Your task to perform on an android device: View the shopping cart on ebay.com. Search for corsair k70 on ebay.com, select the first entry, and add it to the cart. Image 0: 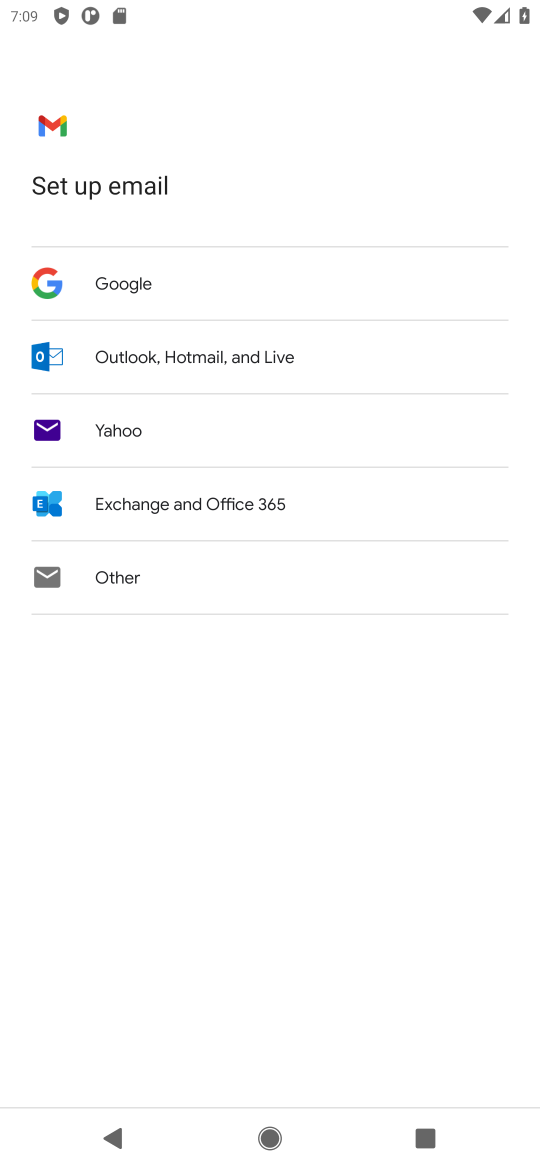
Step 0: press home button
Your task to perform on an android device: View the shopping cart on ebay.com. Search for corsair k70 on ebay.com, select the first entry, and add it to the cart. Image 1: 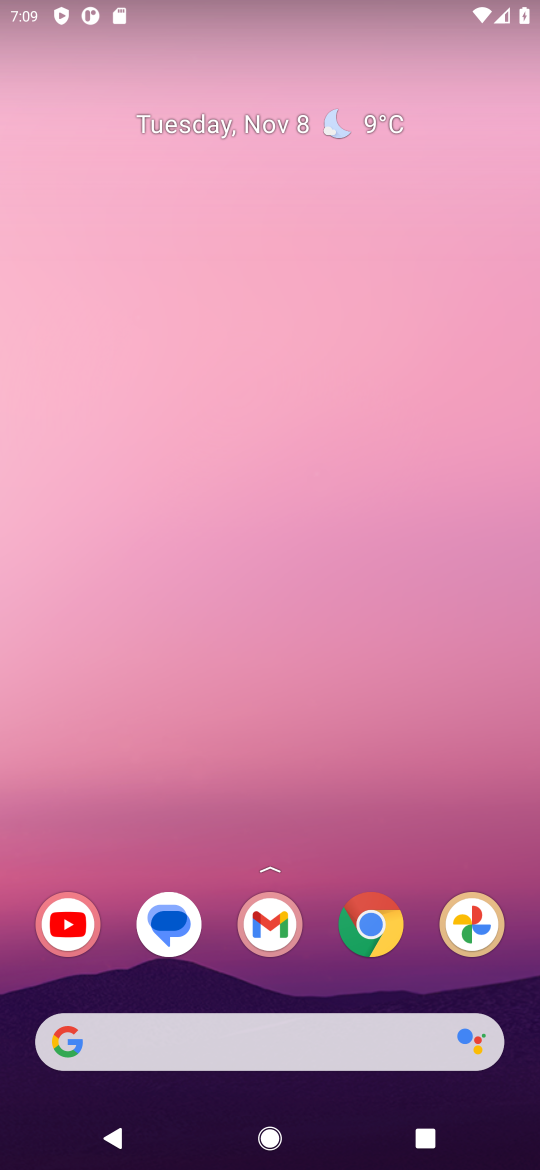
Step 1: drag from (238, 897) to (263, 353)
Your task to perform on an android device: View the shopping cart on ebay.com. Search for corsair k70 on ebay.com, select the first entry, and add it to the cart. Image 2: 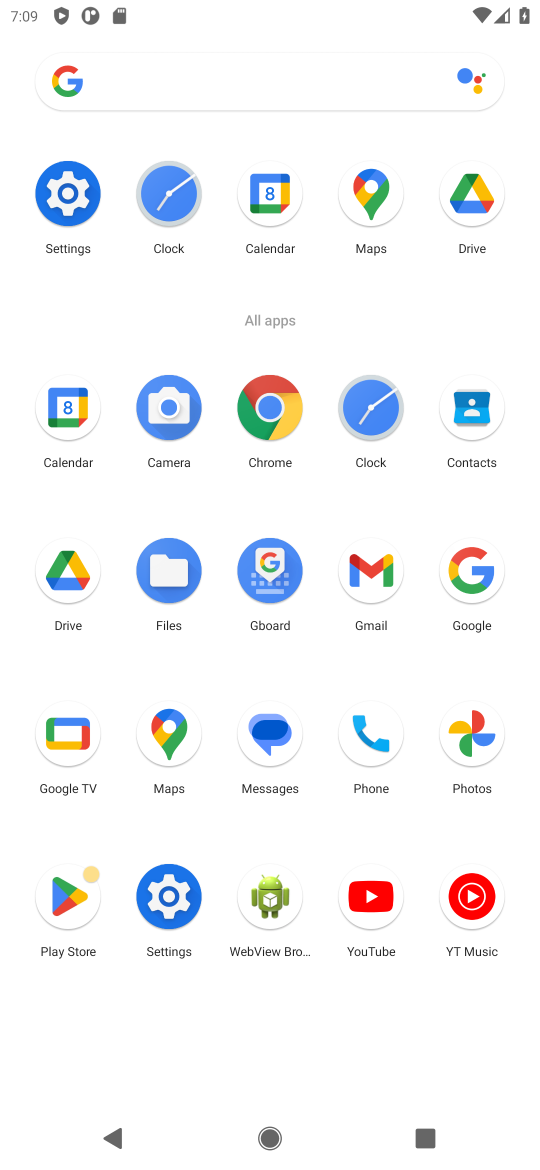
Step 2: click (471, 581)
Your task to perform on an android device: View the shopping cart on ebay.com. Search for corsair k70 on ebay.com, select the first entry, and add it to the cart. Image 3: 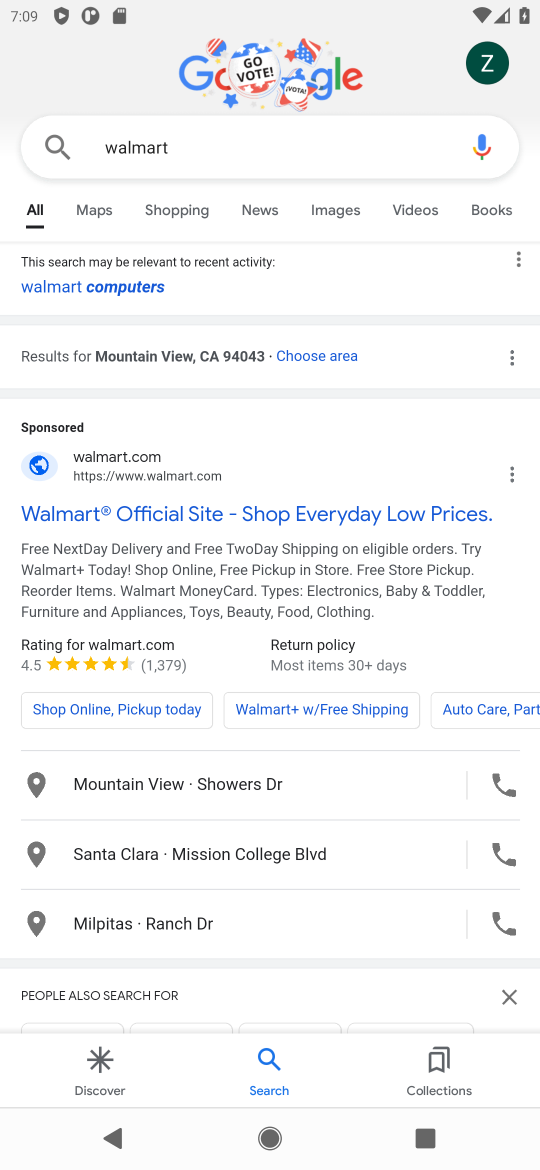
Step 3: click (291, 132)
Your task to perform on an android device: View the shopping cart on ebay.com. Search for corsair k70 on ebay.com, select the first entry, and add it to the cart. Image 4: 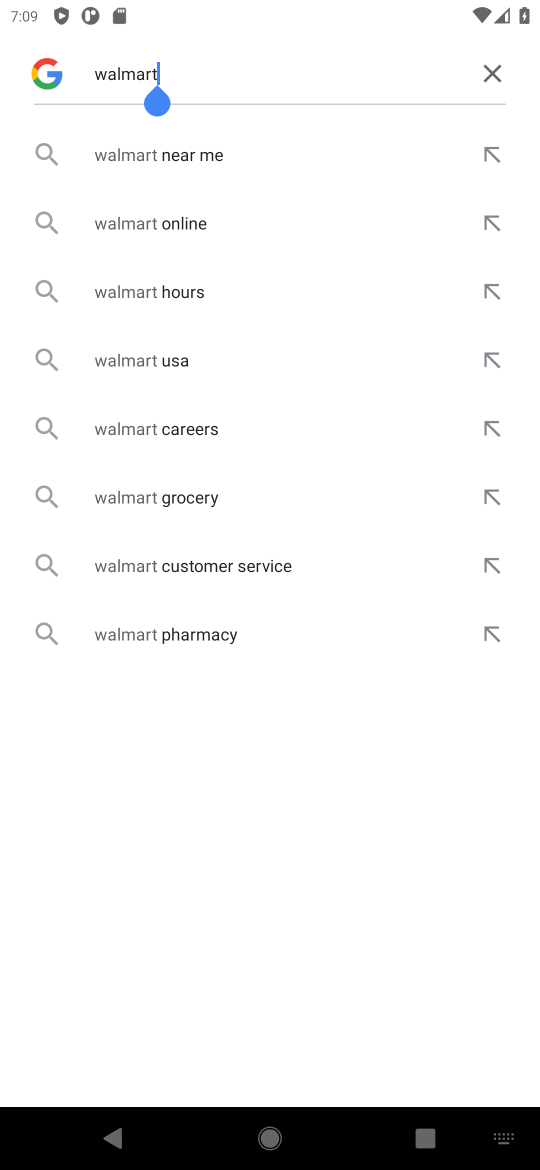
Step 4: click (496, 71)
Your task to perform on an android device: View the shopping cart on ebay.com. Search for corsair k70 on ebay.com, select the first entry, and add it to the cart. Image 5: 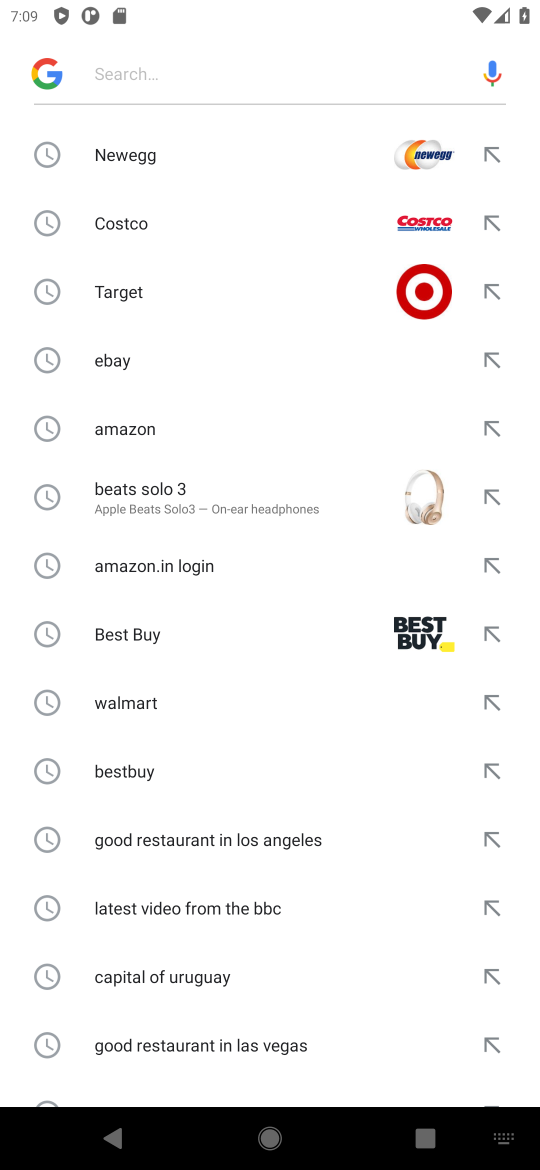
Step 5: click (152, 363)
Your task to perform on an android device: View the shopping cart on ebay.com. Search for corsair k70 on ebay.com, select the first entry, and add it to the cart. Image 6: 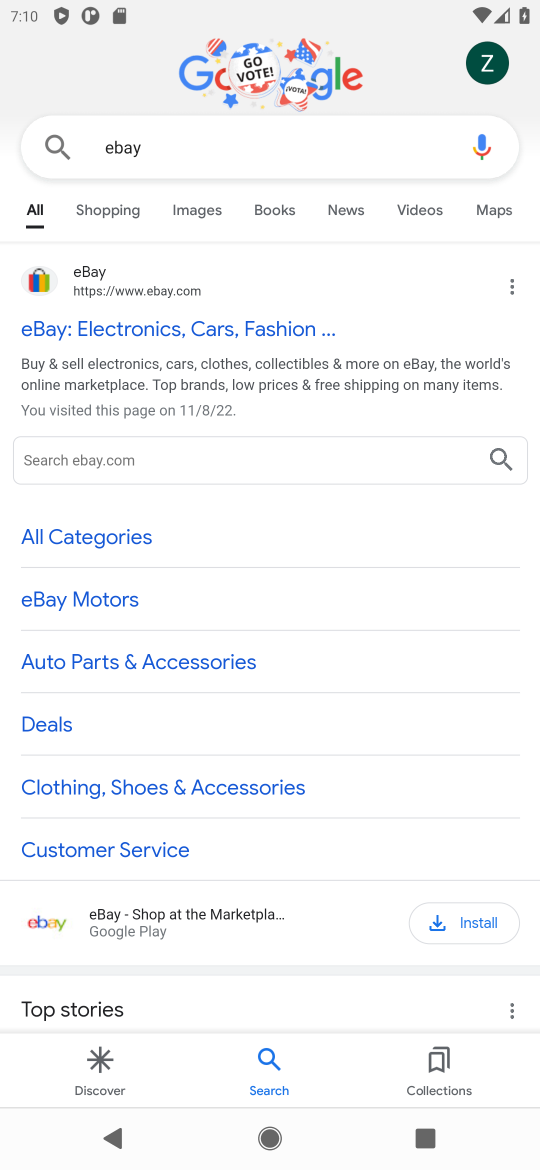
Step 6: click (90, 278)
Your task to perform on an android device: View the shopping cart on ebay.com. Search for corsair k70 on ebay.com, select the first entry, and add it to the cart. Image 7: 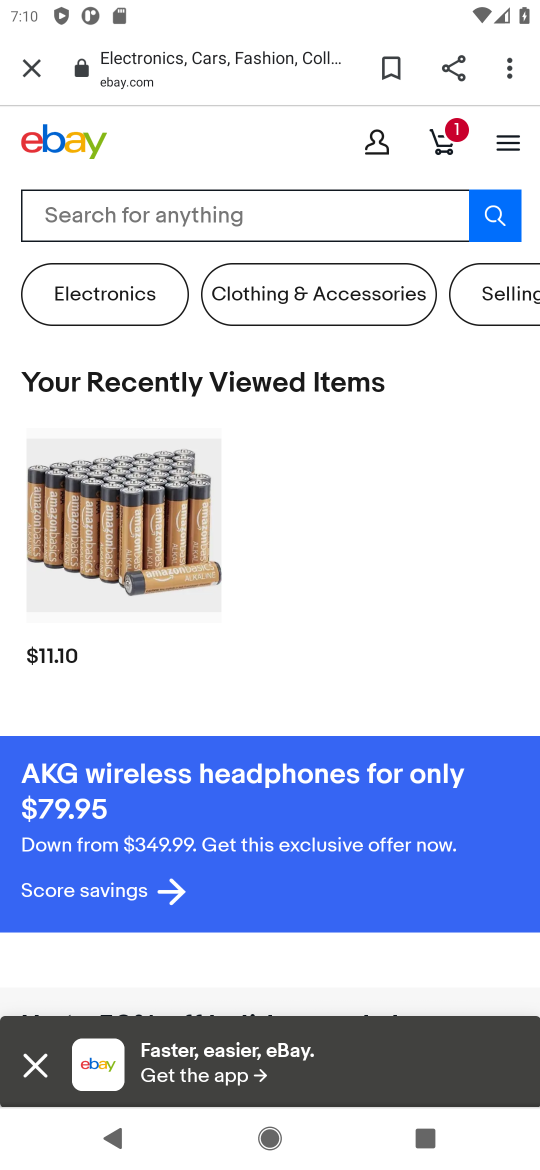
Step 7: click (174, 207)
Your task to perform on an android device: View the shopping cart on ebay.com. Search for corsair k70 on ebay.com, select the first entry, and add it to the cart. Image 8: 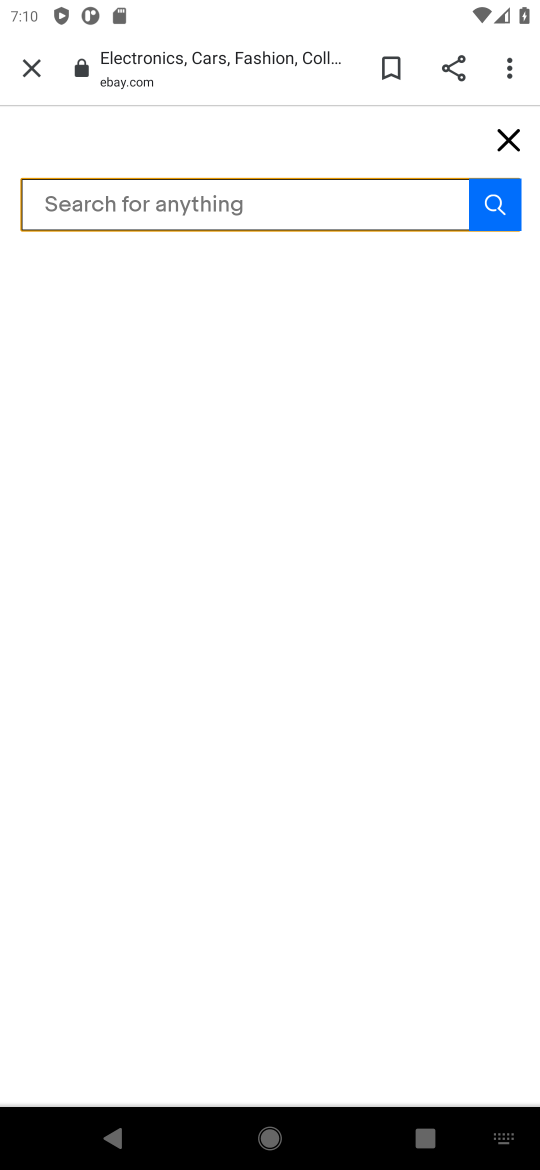
Step 8: type "corsair k70 "
Your task to perform on an android device: View the shopping cart on ebay.com. Search for corsair k70 on ebay.com, select the first entry, and add it to the cart. Image 9: 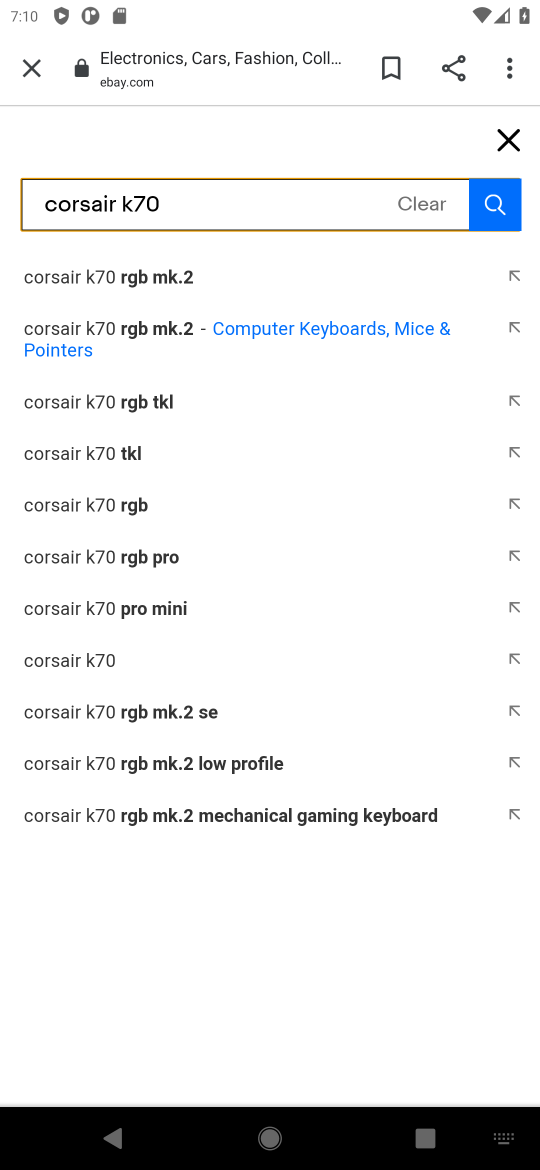
Step 9: click (73, 656)
Your task to perform on an android device: View the shopping cart on ebay.com. Search for corsair k70 on ebay.com, select the first entry, and add it to the cart. Image 10: 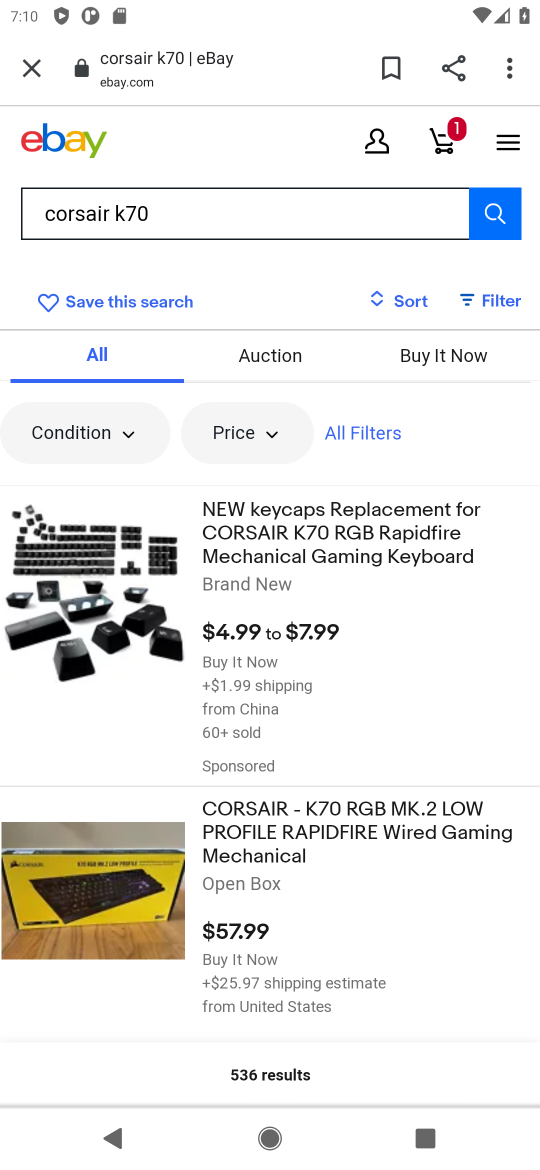
Step 10: click (152, 588)
Your task to perform on an android device: View the shopping cart on ebay.com. Search for corsair k70 on ebay.com, select the first entry, and add it to the cart. Image 11: 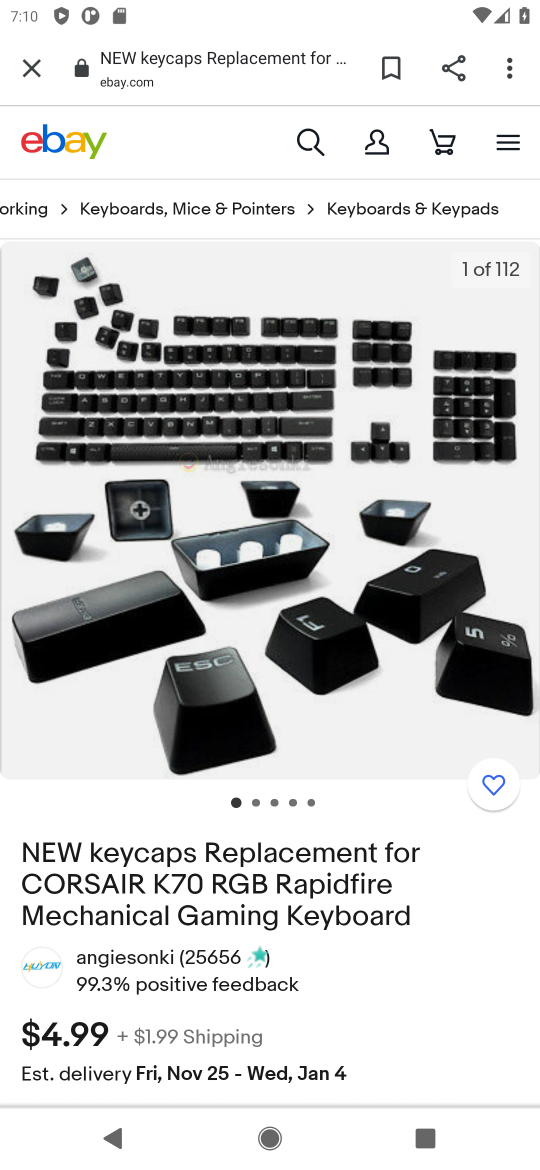
Step 11: drag from (220, 753) to (220, 524)
Your task to perform on an android device: View the shopping cart on ebay.com. Search for corsair k70 on ebay.com, select the first entry, and add it to the cart. Image 12: 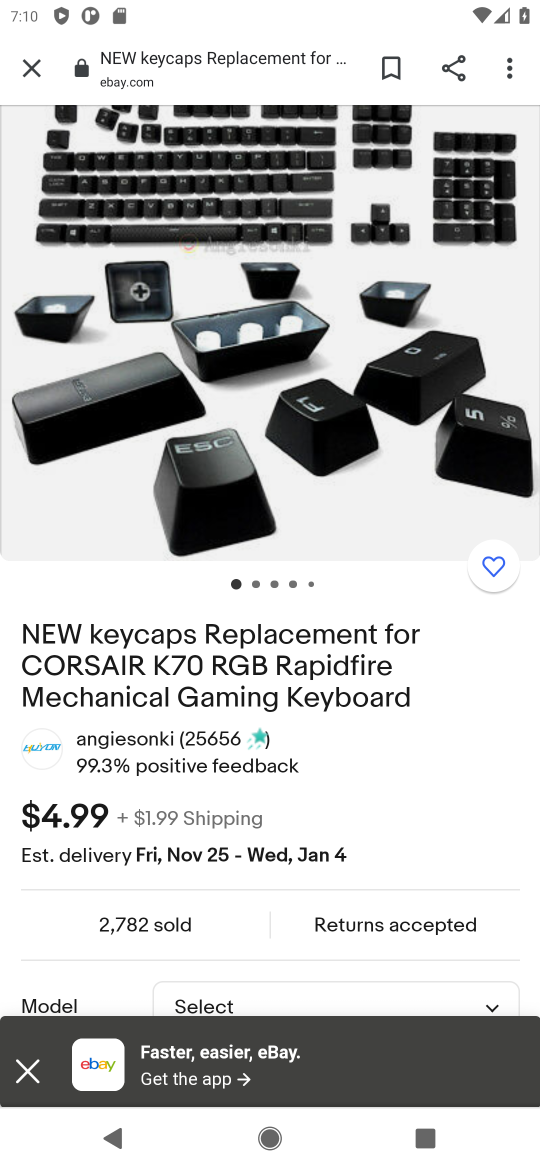
Step 12: drag from (262, 791) to (247, 491)
Your task to perform on an android device: View the shopping cart on ebay.com. Search for corsair k70 on ebay.com, select the first entry, and add it to the cart. Image 13: 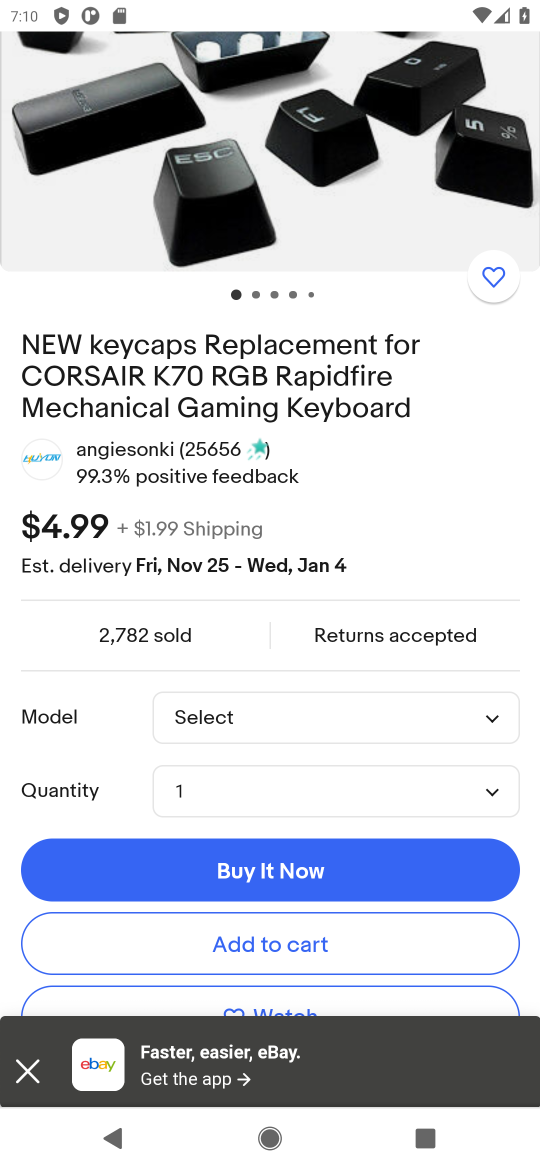
Step 13: click (245, 938)
Your task to perform on an android device: View the shopping cart on ebay.com. Search for corsair k70 on ebay.com, select the first entry, and add it to the cart. Image 14: 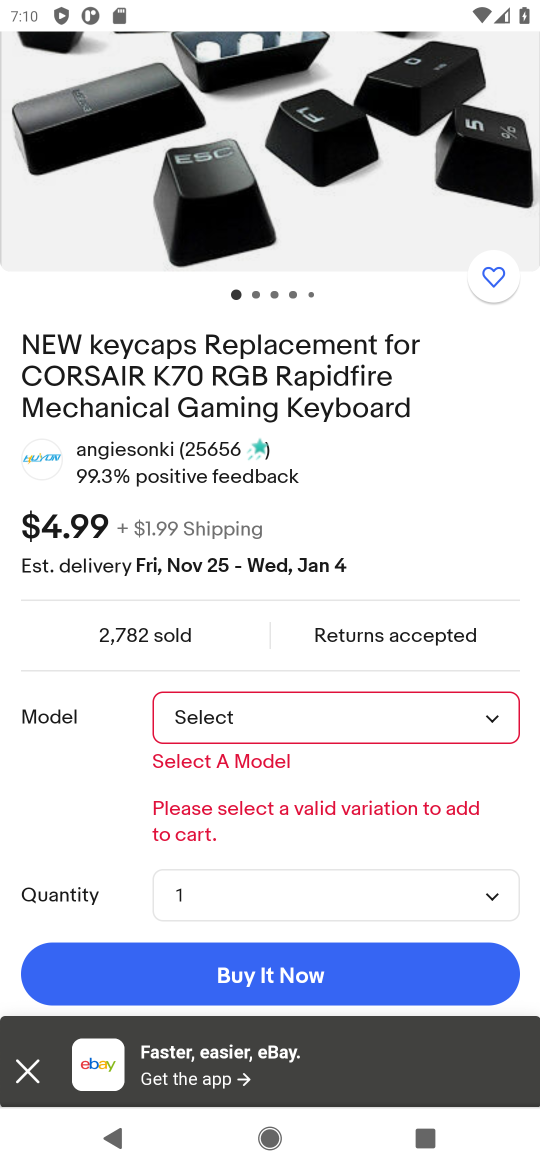
Step 14: click (488, 714)
Your task to perform on an android device: View the shopping cart on ebay.com. Search for corsair k70 on ebay.com, select the first entry, and add it to the cart. Image 15: 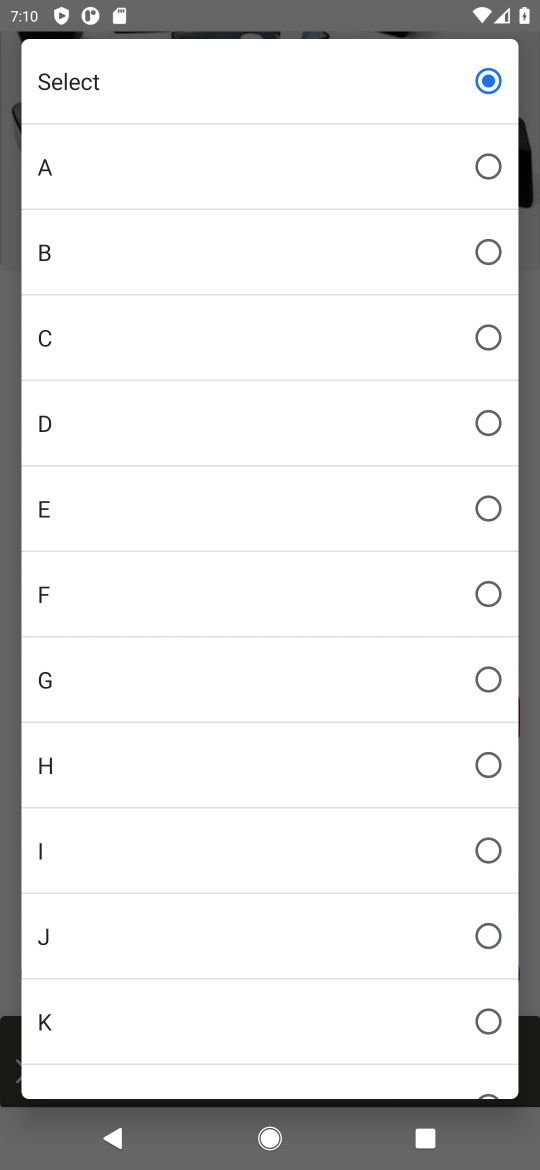
Step 15: click (482, 150)
Your task to perform on an android device: View the shopping cart on ebay.com. Search for corsair k70 on ebay.com, select the first entry, and add it to the cart. Image 16: 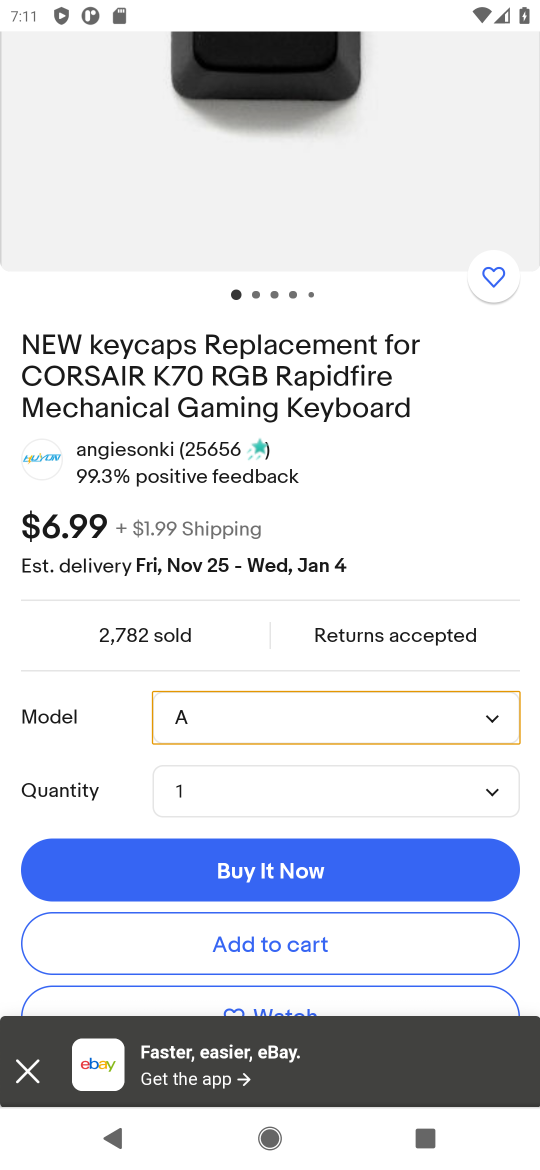
Step 16: click (242, 951)
Your task to perform on an android device: View the shopping cart on ebay.com. Search for corsair k70 on ebay.com, select the first entry, and add it to the cart. Image 17: 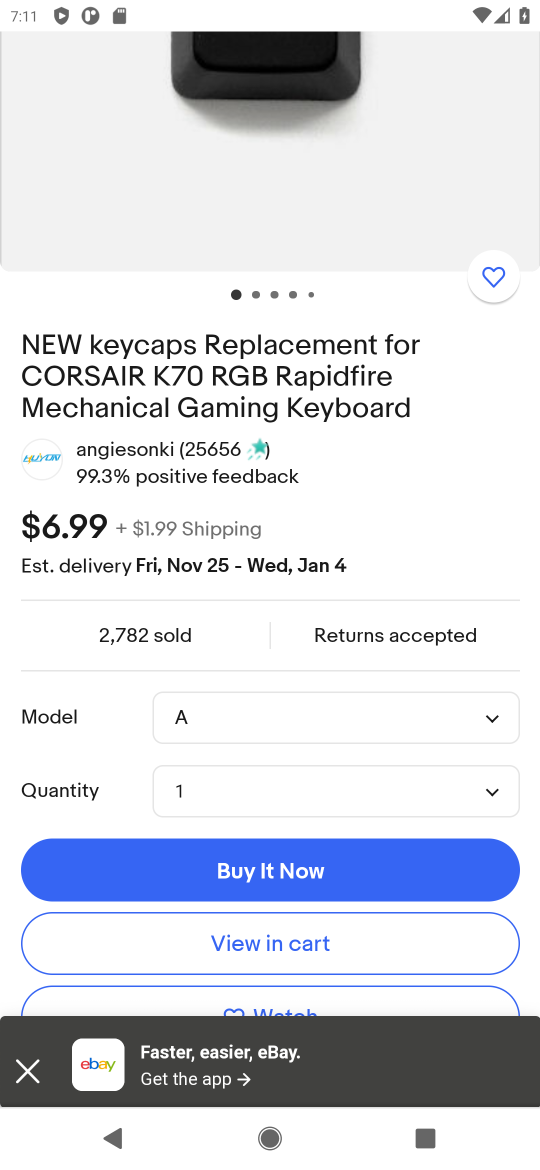
Step 17: click (257, 944)
Your task to perform on an android device: View the shopping cart on ebay.com. Search for corsair k70 on ebay.com, select the first entry, and add it to the cart. Image 18: 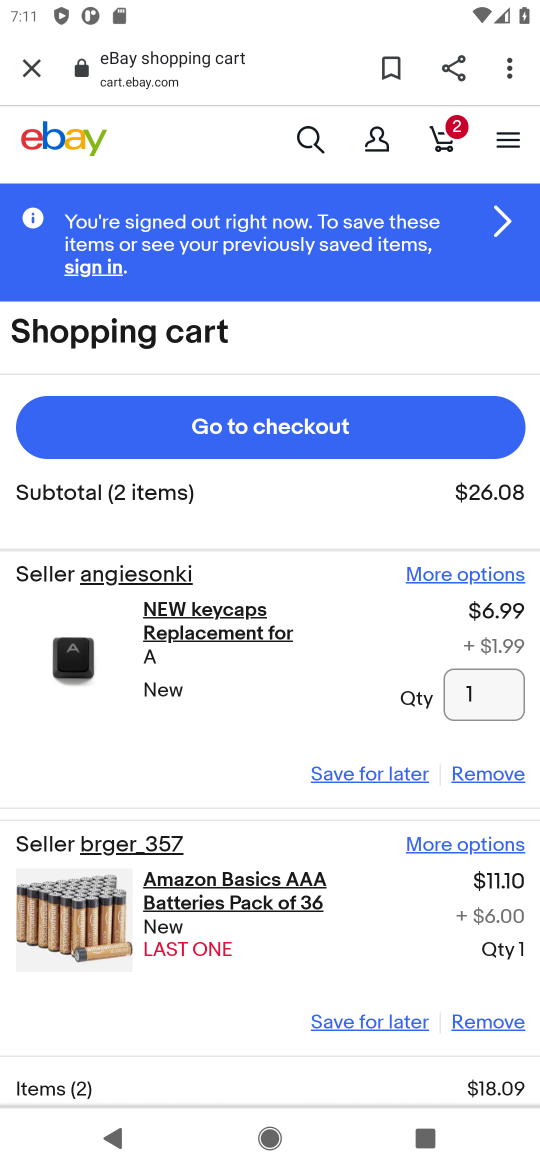
Step 18: task complete